Your task to perform on an android device: check data usage Image 0: 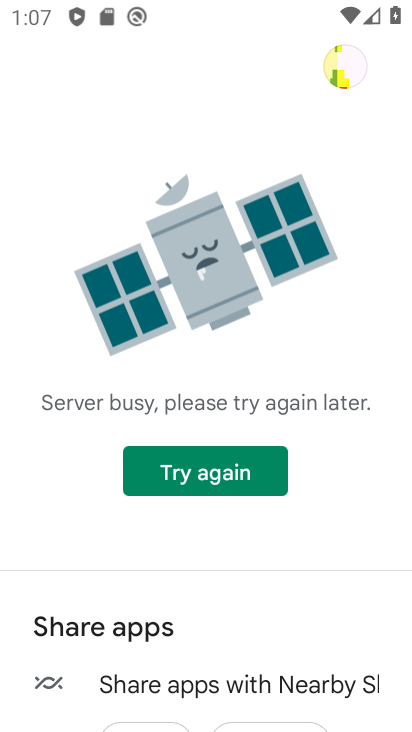
Step 0: press home button
Your task to perform on an android device: check data usage Image 1: 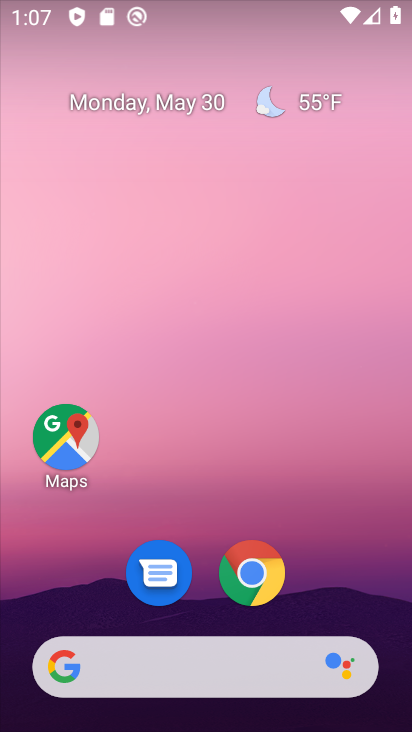
Step 1: drag from (320, 571) to (224, 94)
Your task to perform on an android device: check data usage Image 2: 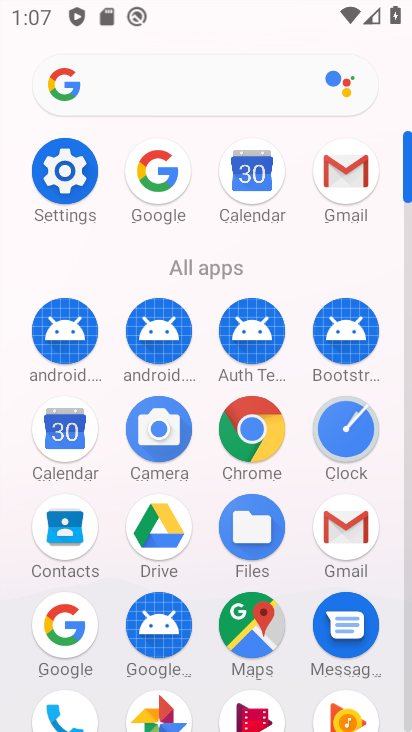
Step 2: click (65, 171)
Your task to perform on an android device: check data usage Image 3: 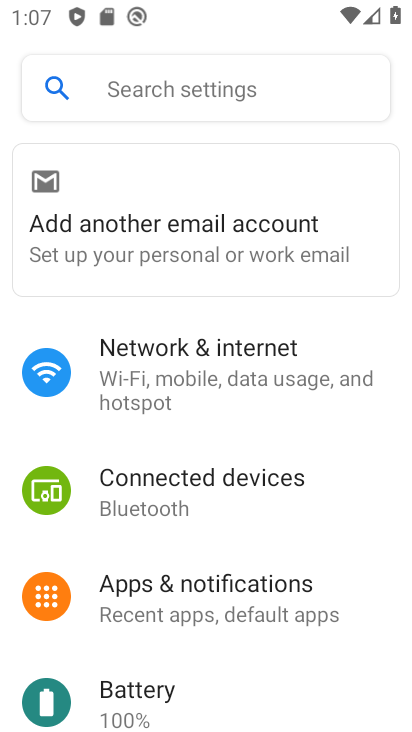
Step 3: click (207, 364)
Your task to perform on an android device: check data usage Image 4: 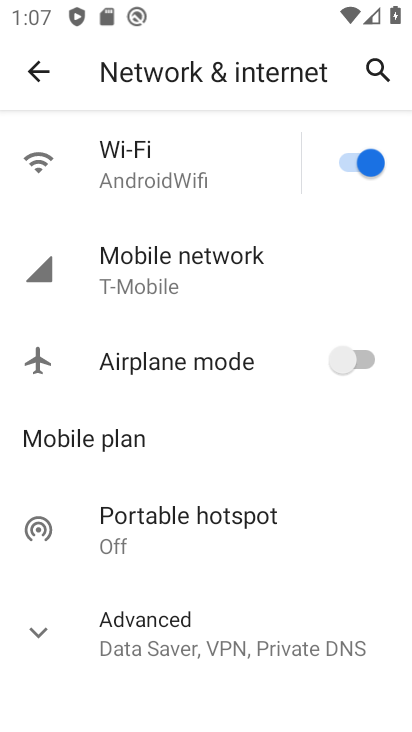
Step 4: click (215, 282)
Your task to perform on an android device: check data usage Image 5: 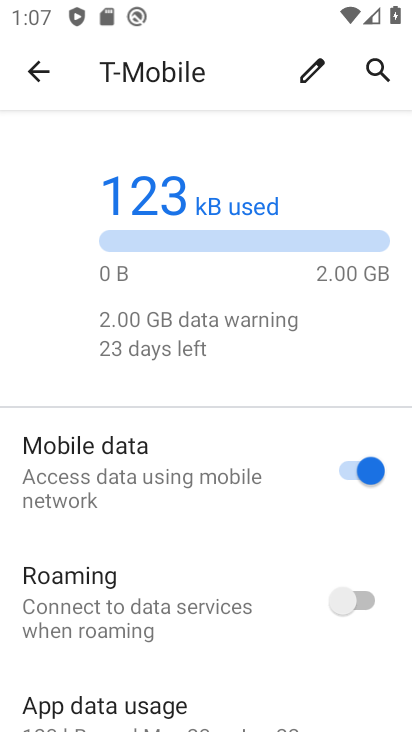
Step 5: task complete